Your task to perform on an android device: Go to settings Image 0: 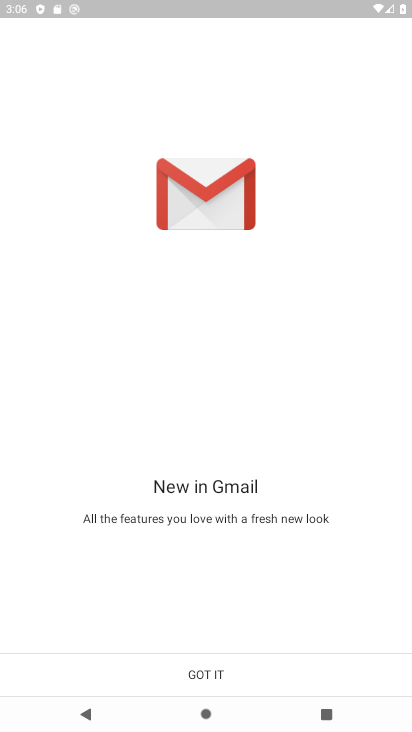
Step 0: click (242, 677)
Your task to perform on an android device: Go to settings Image 1: 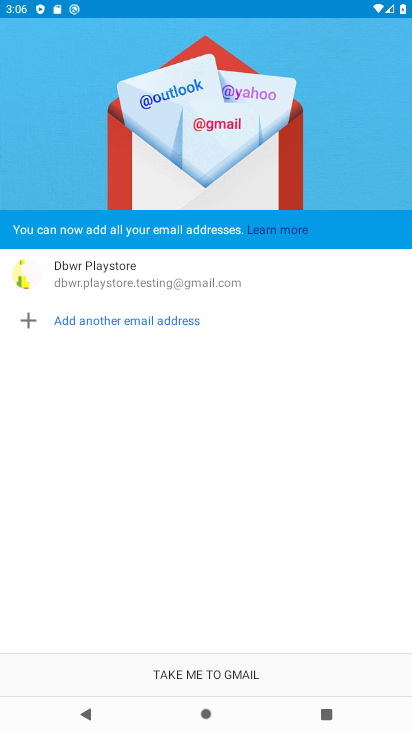
Step 1: press home button
Your task to perform on an android device: Go to settings Image 2: 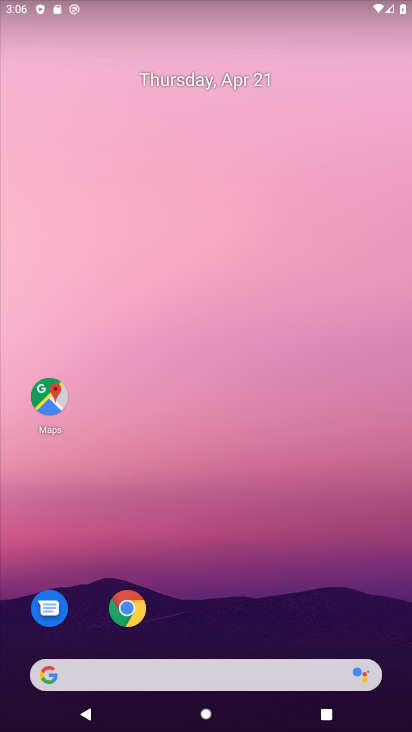
Step 2: drag from (284, 600) to (224, 121)
Your task to perform on an android device: Go to settings Image 3: 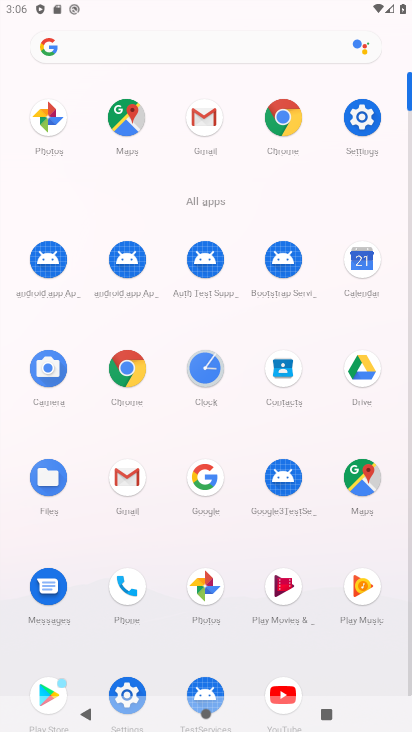
Step 3: click (361, 112)
Your task to perform on an android device: Go to settings Image 4: 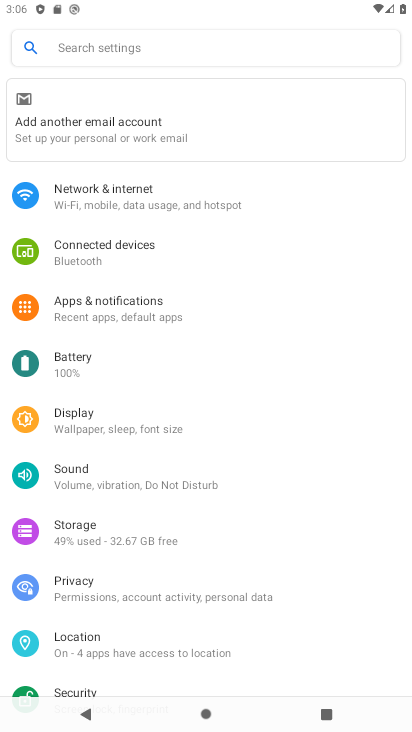
Step 4: task complete